Your task to perform on an android device: What's the weather going to be this weekend? Image 0: 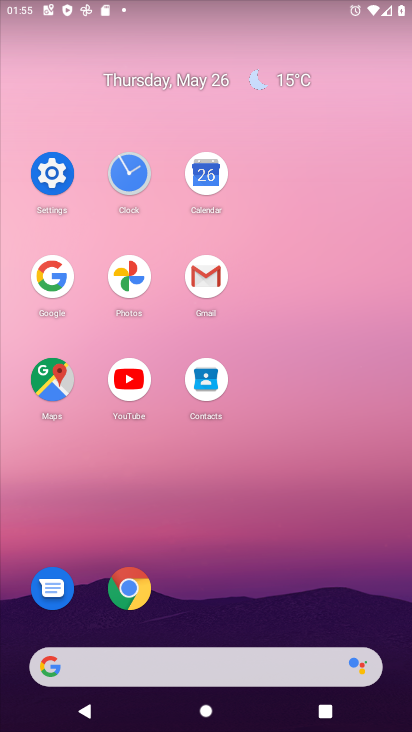
Step 0: click (67, 278)
Your task to perform on an android device: What's the weather going to be this weekend? Image 1: 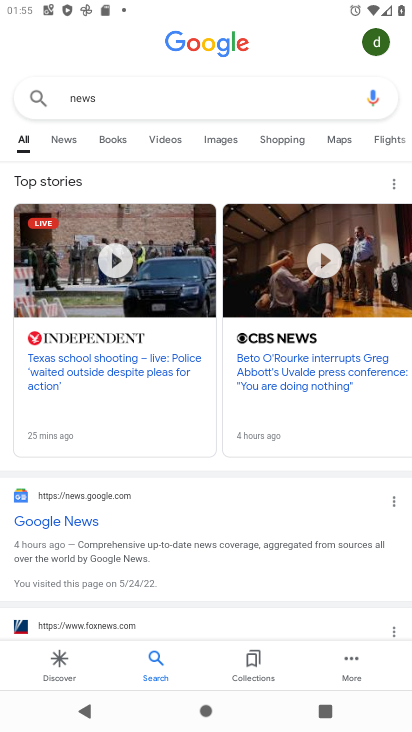
Step 1: click (119, 85)
Your task to perform on an android device: What's the weather going to be this weekend? Image 2: 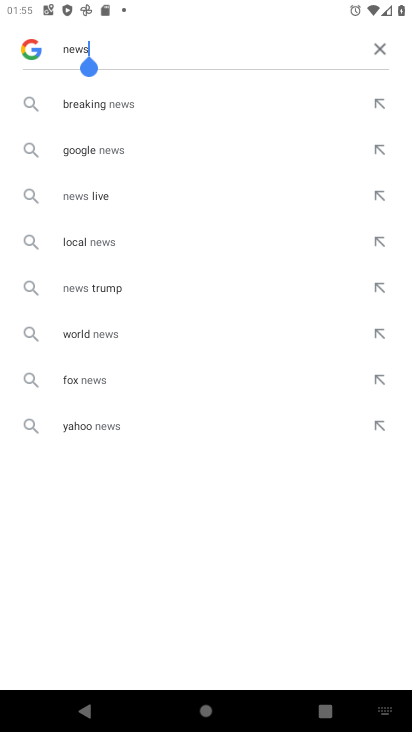
Step 2: click (384, 45)
Your task to perform on an android device: What's the weather going to be this weekend? Image 3: 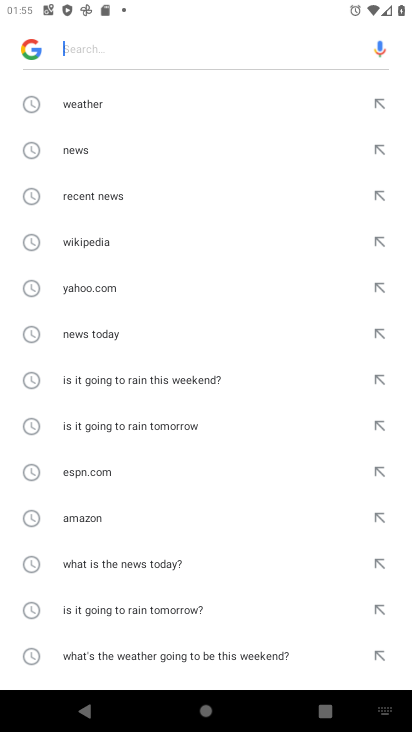
Step 3: click (104, 106)
Your task to perform on an android device: What's the weather going to be this weekend? Image 4: 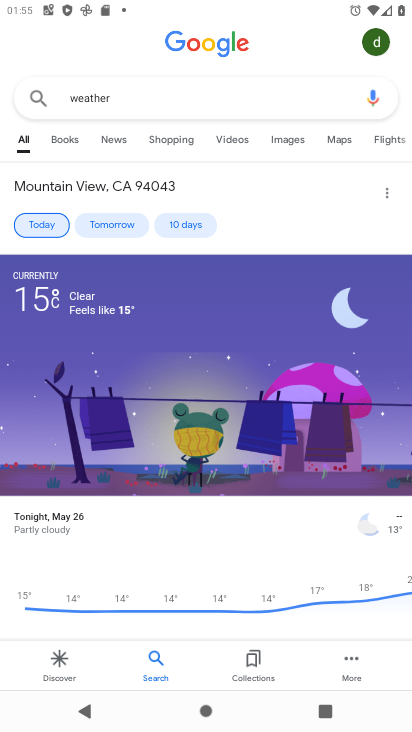
Step 4: click (192, 222)
Your task to perform on an android device: What's the weather going to be this weekend? Image 5: 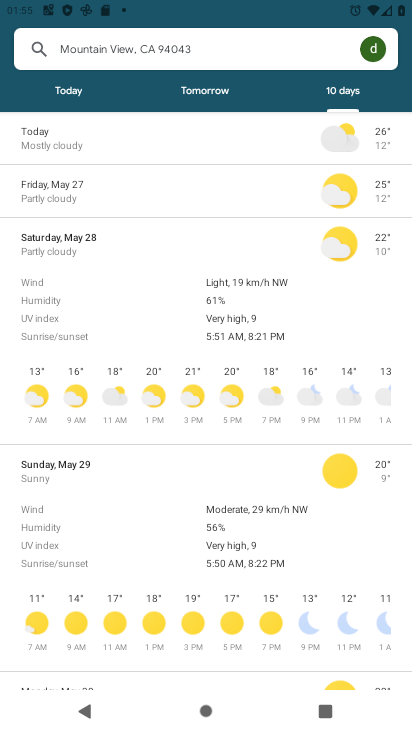
Step 5: task complete